Your task to perform on an android device: Is it going to rain tomorrow? Image 0: 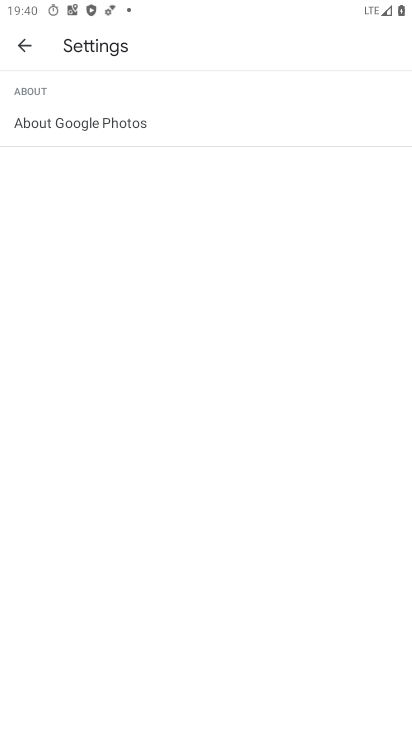
Step 0: press home button
Your task to perform on an android device: Is it going to rain tomorrow? Image 1: 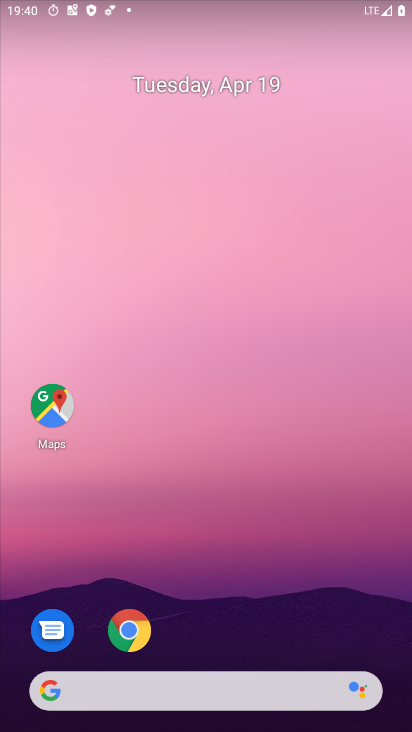
Step 1: click (192, 705)
Your task to perform on an android device: Is it going to rain tomorrow? Image 2: 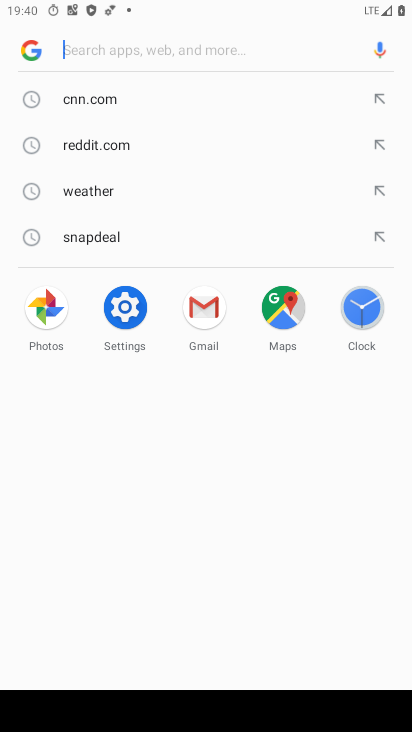
Step 2: click (82, 199)
Your task to perform on an android device: Is it going to rain tomorrow? Image 3: 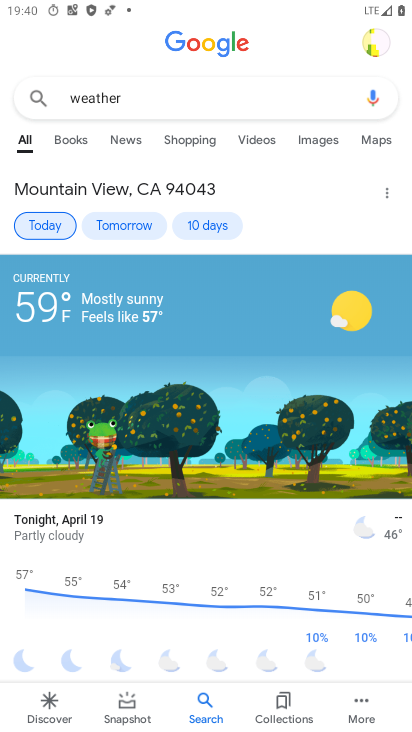
Step 3: click (123, 220)
Your task to perform on an android device: Is it going to rain tomorrow? Image 4: 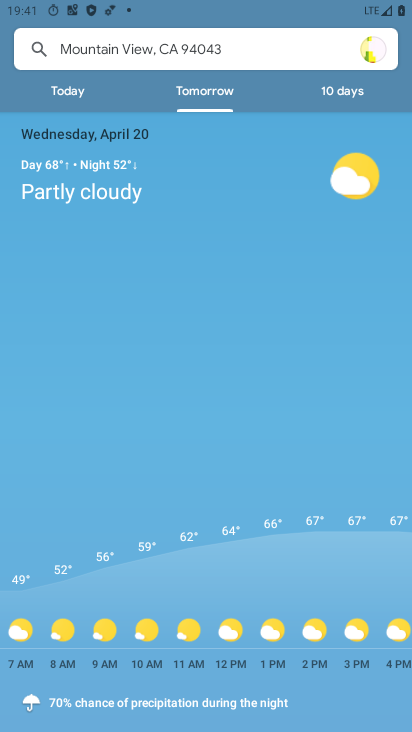
Step 4: task complete